Your task to perform on an android device: see tabs open on other devices in the chrome app Image 0: 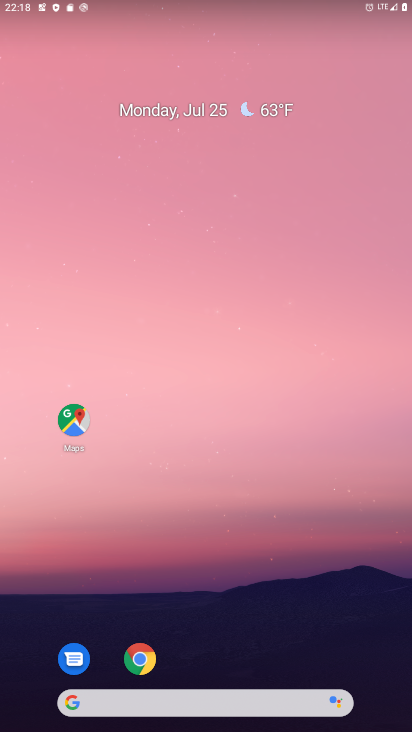
Step 0: click (141, 662)
Your task to perform on an android device: see tabs open on other devices in the chrome app Image 1: 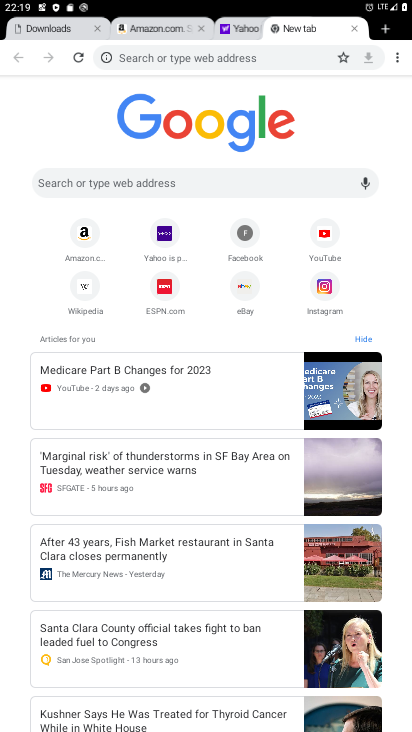
Step 1: click (400, 60)
Your task to perform on an android device: see tabs open on other devices in the chrome app Image 2: 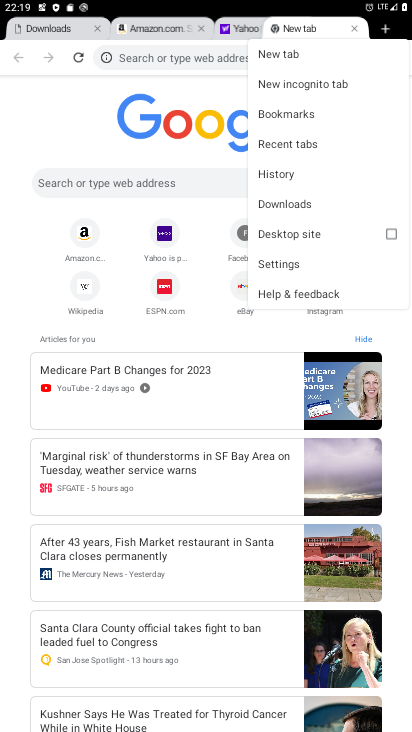
Step 2: click (291, 145)
Your task to perform on an android device: see tabs open on other devices in the chrome app Image 3: 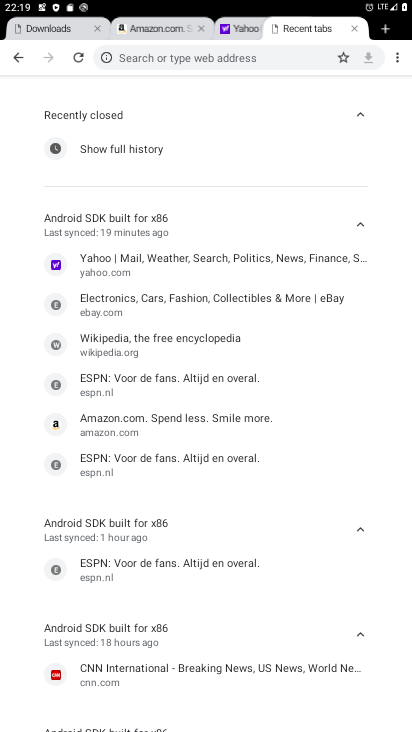
Step 3: task complete